Your task to perform on an android device: Open the Play Movies app and select the watchlist tab. Image 0: 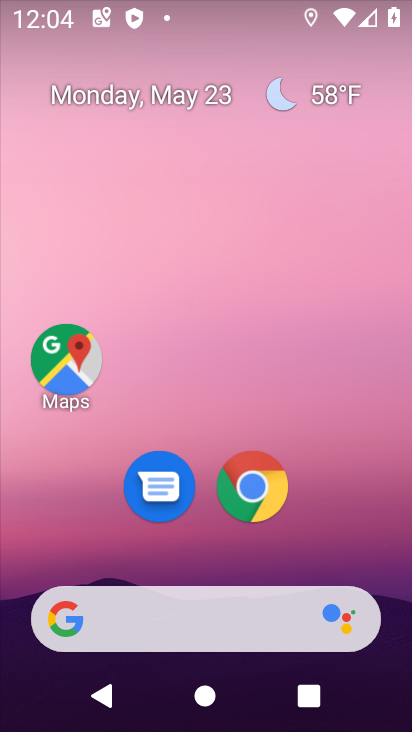
Step 0: drag from (399, 618) to (321, 93)
Your task to perform on an android device: Open the Play Movies app and select the watchlist tab. Image 1: 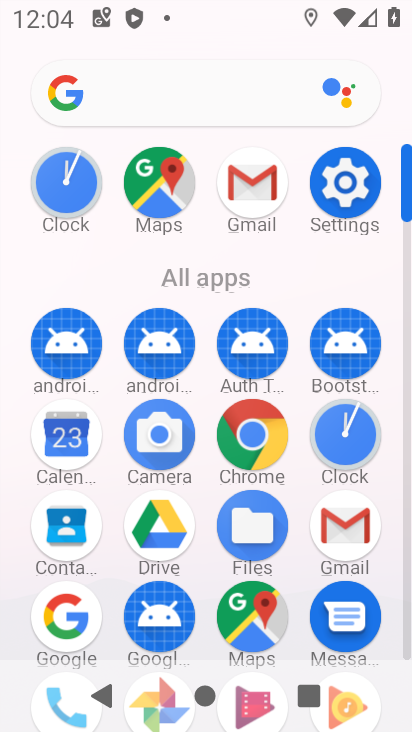
Step 1: click (404, 634)
Your task to perform on an android device: Open the Play Movies app and select the watchlist tab. Image 2: 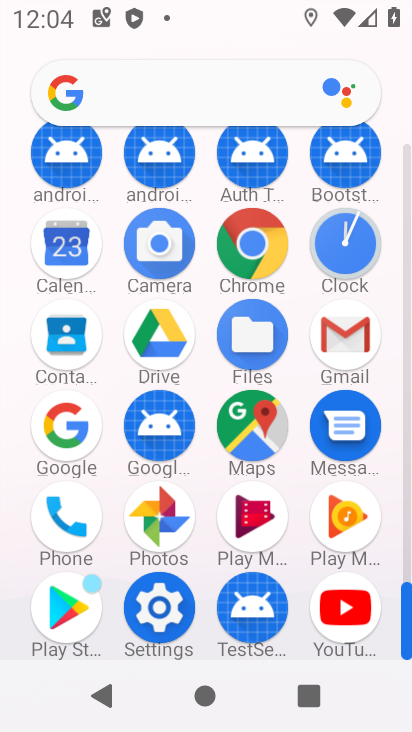
Step 2: click (258, 508)
Your task to perform on an android device: Open the Play Movies app and select the watchlist tab. Image 3: 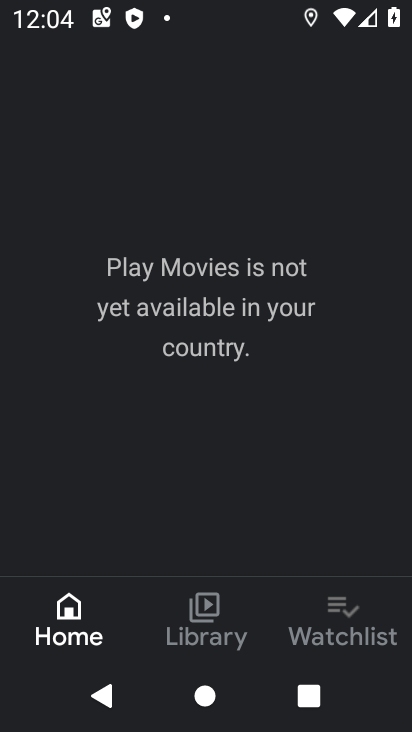
Step 3: click (352, 622)
Your task to perform on an android device: Open the Play Movies app and select the watchlist tab. Image 4: 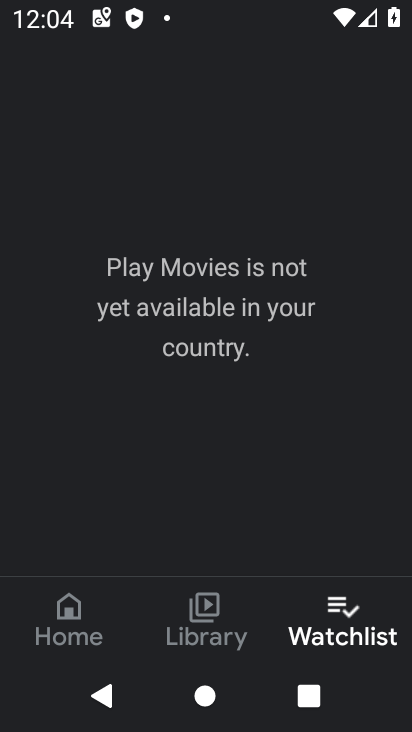
Step 4: task complete